Your task to perform on an android device: Do I have any events this weekend? Image 0: 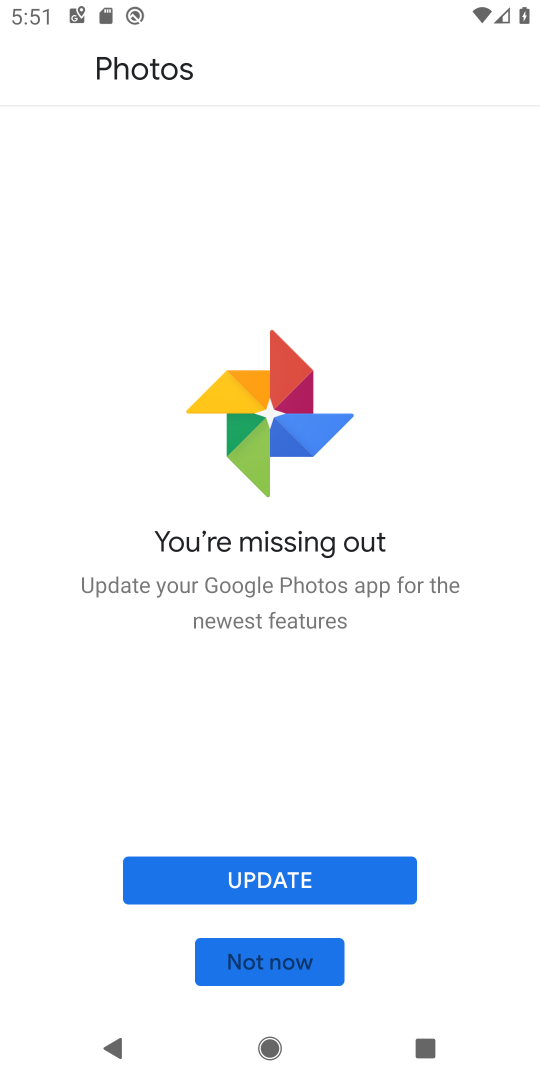
Step 0: press home button
Your task to perform on an android device: Do I have any events this weekend? Image 1: 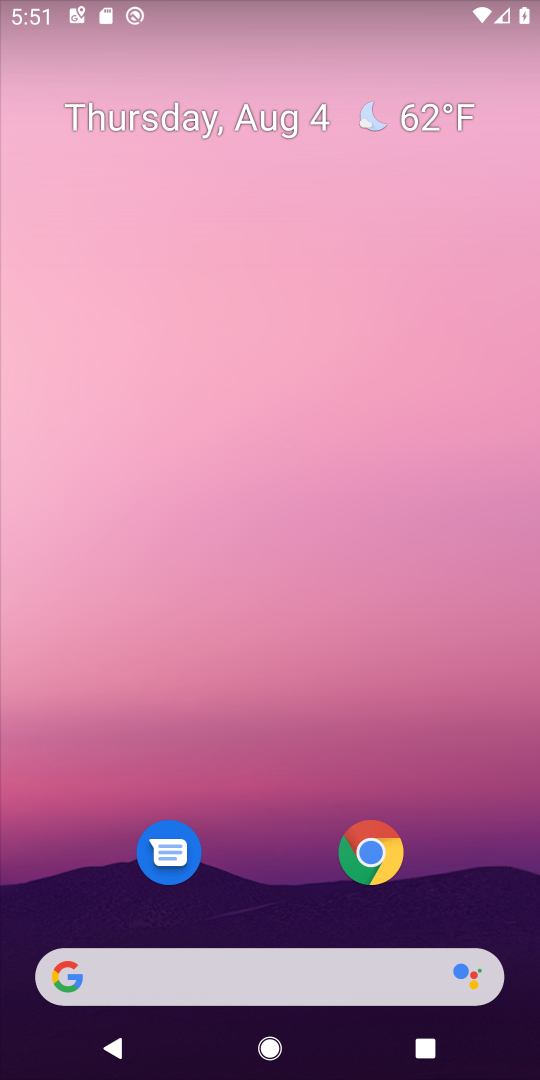
Step 1: drag from (269, 919) to (266, 523)
Your task to perform on an android device: Do I have any events this weekend? Image 2: 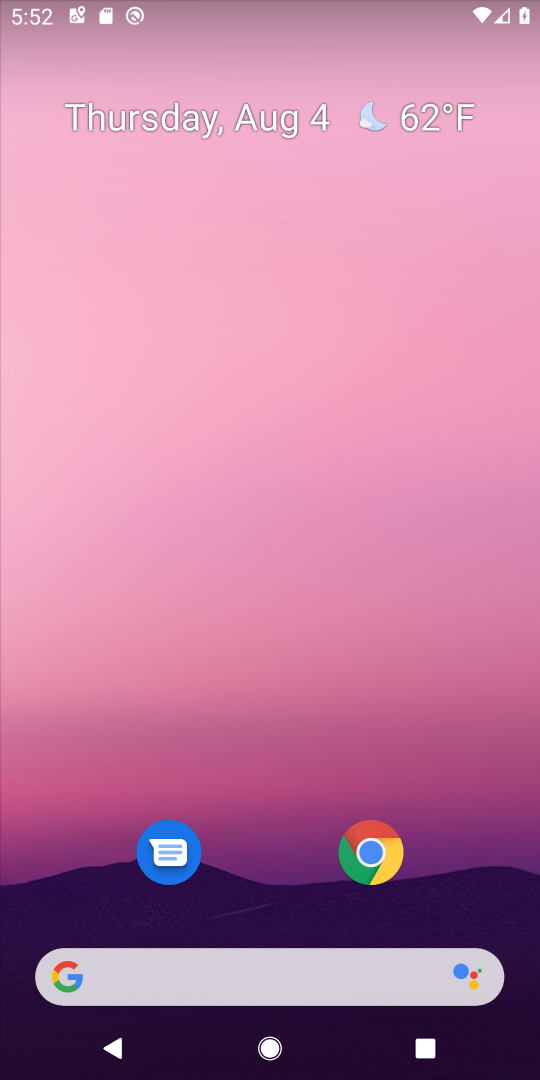
Step 2: drag from (277, 915) to (282, 339)
Your task to perform on an android device: Do I have any events this weekend? Image 3: 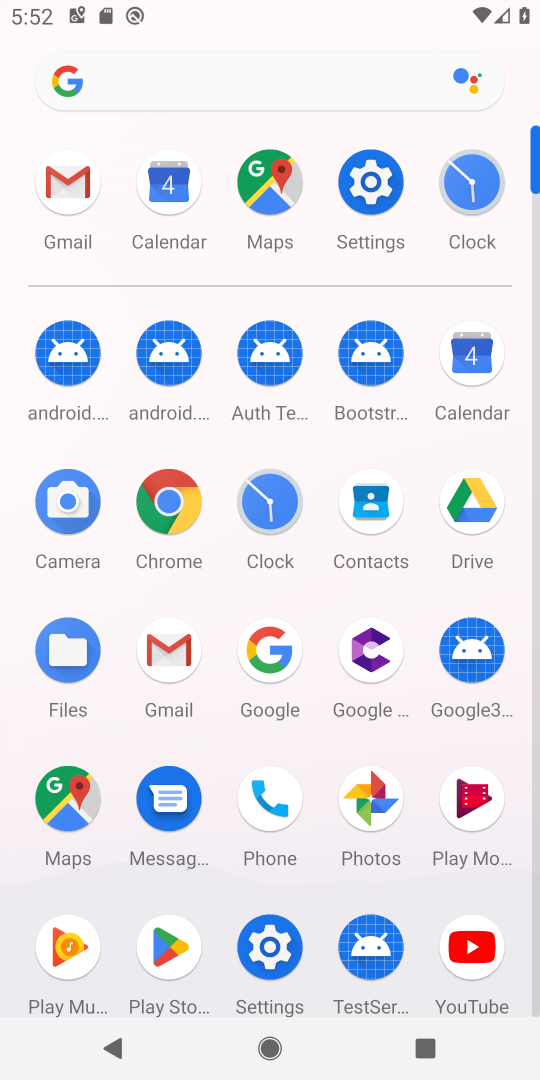
Step 3: click (459, 365)
Your task to perform on an android device: Do I have any events this weekend? Image 4: 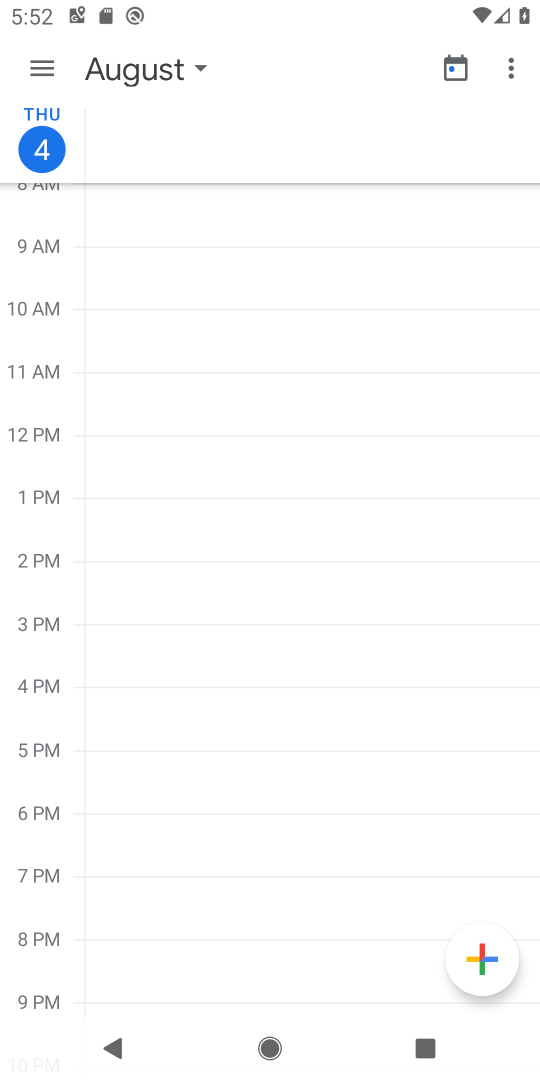
Step 4: click (210, 88)
Your task to perform on an android device: Do I have any events this weekend? Image 5: 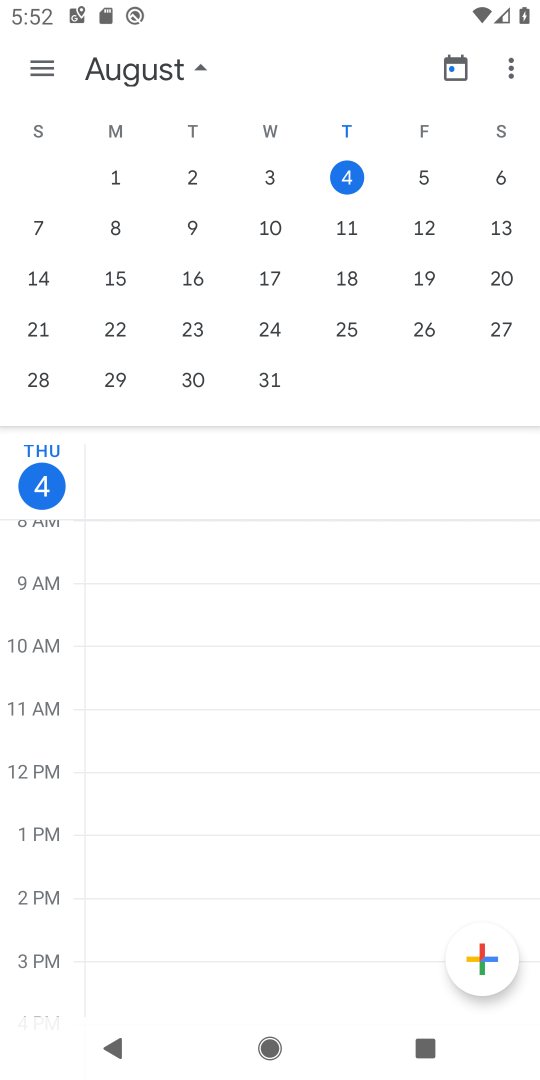
Step 5: click (47, 71)
Your task to perform on an android device: Do I have any events this weekend? Image 6: 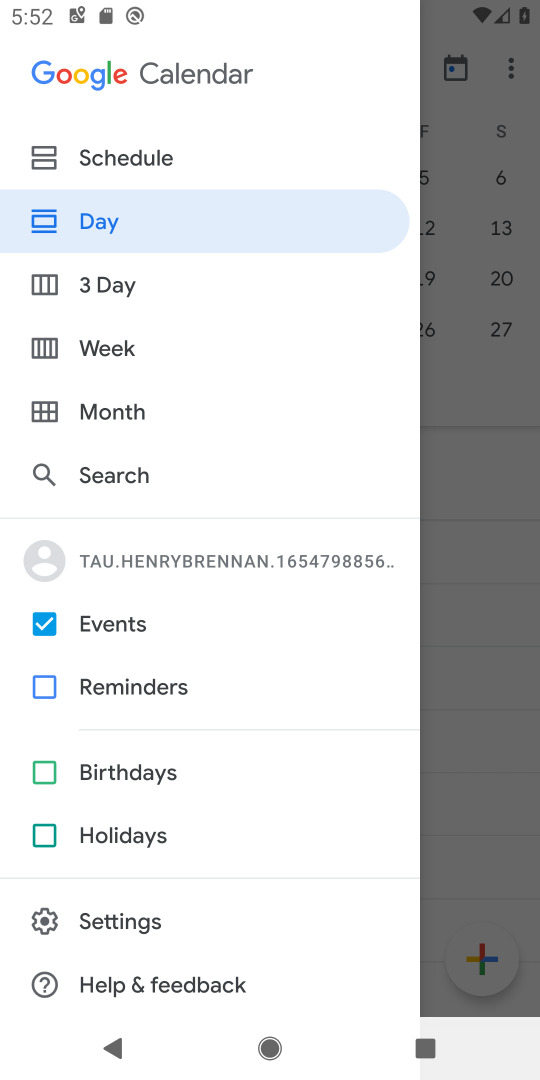
Step 6: click (109, 341)
Your task to perform on an android device: Do I have any events this weekend? Image 7: 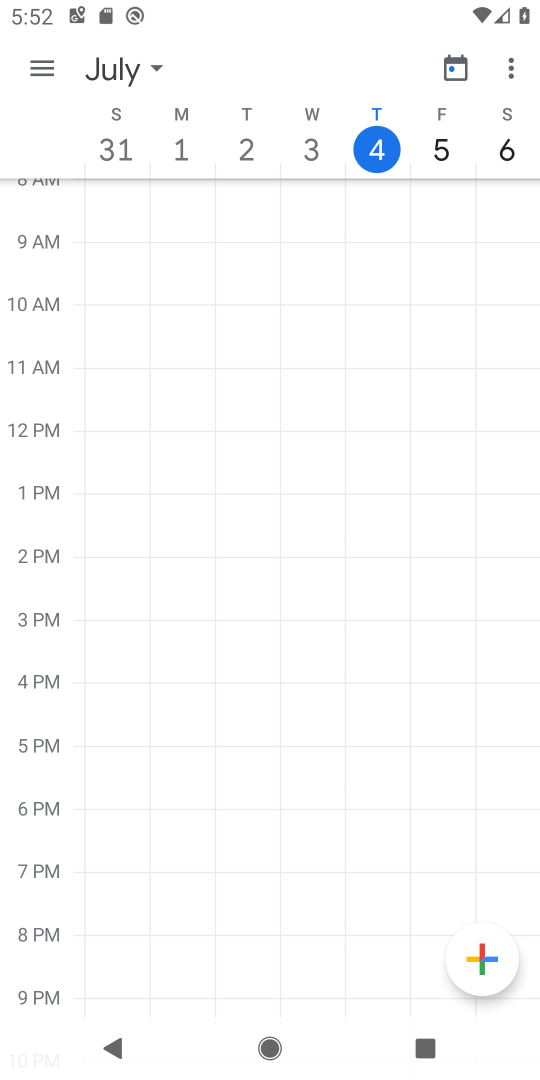
Step 7: task complete